Your task to perform on an android device: check the backup settings in the google photos Image 0: 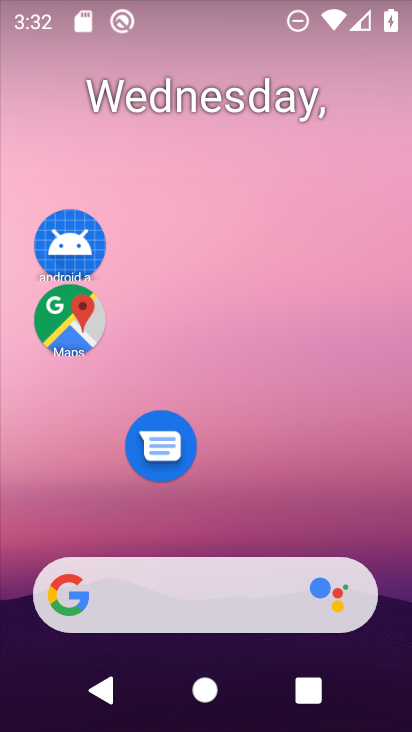
Step 0: drag from (320, 494) to (252, 67)
Your task to perform on an android device: check the backup settings in the google photos Image 1: 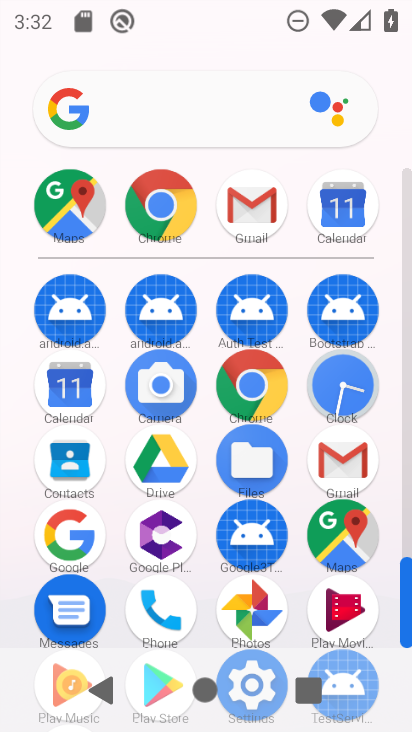
Step 1: click (254, 602)
Your task to perform on an android device: check the backup settings in the google photos Image 2: 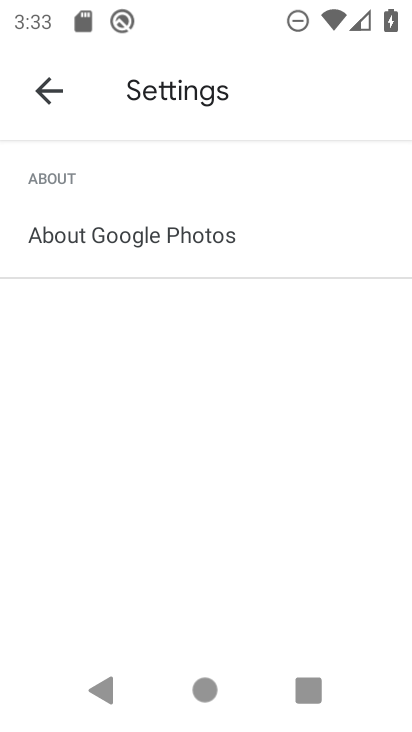
Step 2: click (53, 112)
Your task to perform on an android device: check the backup settings in the google photos Image 3: 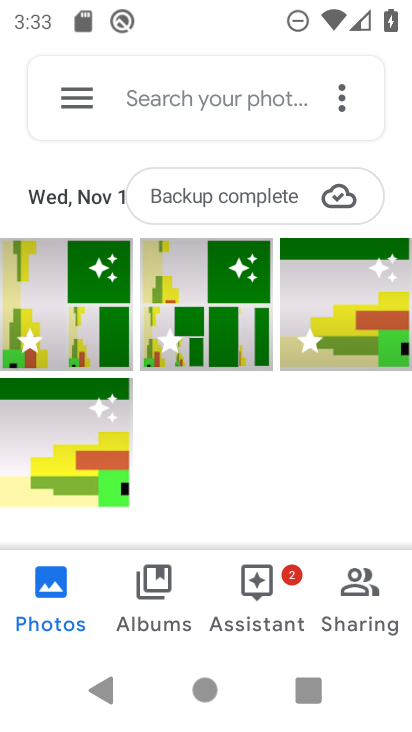
Step 3: click (92, 86)
Your task to perform on an android device: check the backup settings in the google photos Image 4: 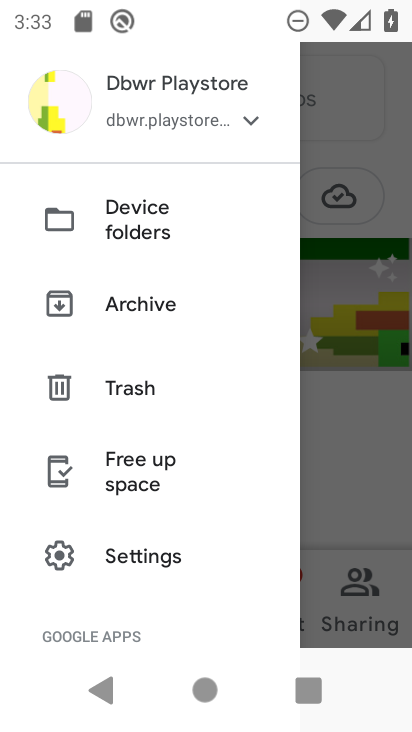
Step 4: click (136, 538)
Your task to perform on an android device: check the backup settings in the google photos Image 5: 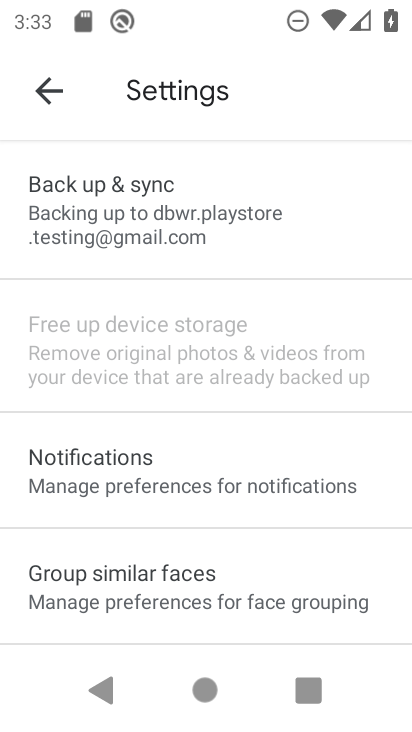
Step 5: click (209, 172)
Your task to perform on an android device: check the backup settings in the google photos Image 6: 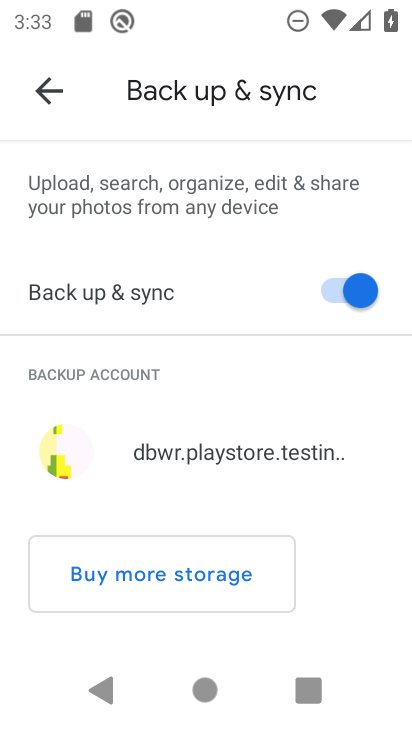
Step 6: task complete